Your task to perform on an android device: turn on showing notifications on the lock screen Image 0: 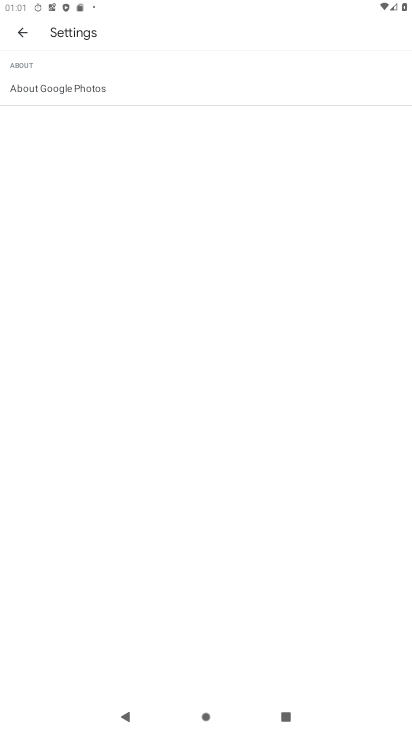
Step 0: press home button
Your task to perform on an android device: turn on showing notifications on the lock screen Image 1: 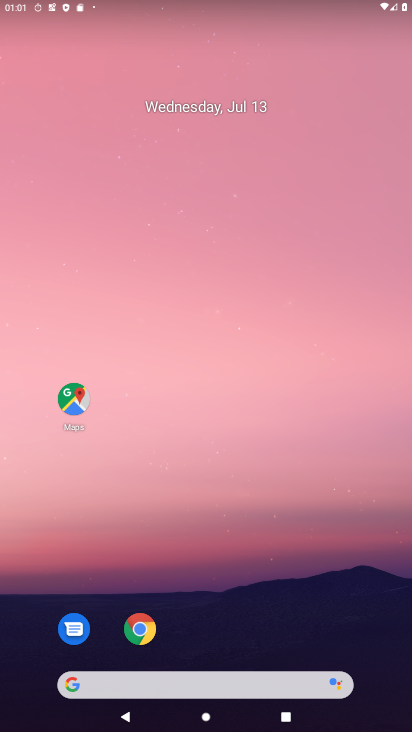
Step 1: drag from (196, 643) to (262, 213)
Your task to perform on an android device: turn on showing notifications on the lock screen Image 2: 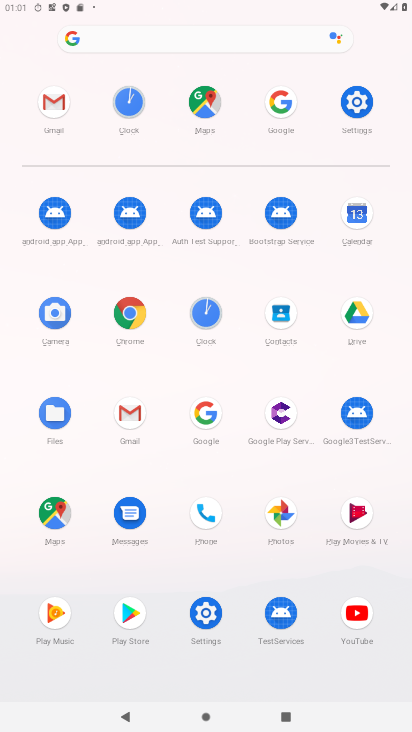
Step 2: click (362, 115)
Your task to perform on an android device: turn on showing notifications on the lock screen Image 3: 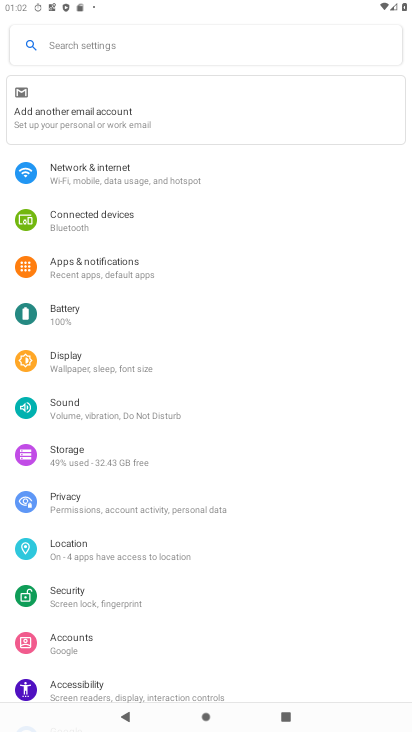
Step 3: click (145, 266)
Your task to perform on an android device: turn on showing notifications on the lock screen Image 4: 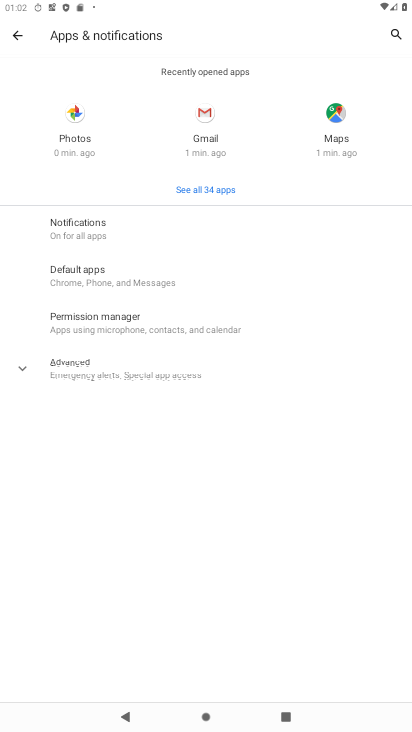
Step 4: click (144, 225)
Your task to perform on an android device: turn on showing notifications on the lock screen Image 5: 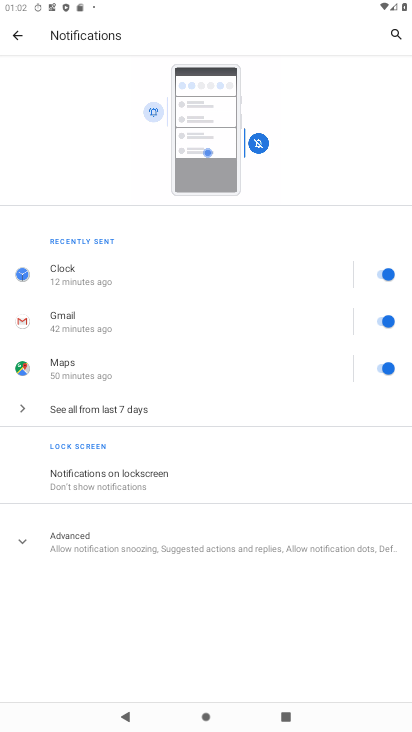
Step 5: click (150, 475)
Your task to perform on an android device: turn on showing notifications on the lock screen Image 6: 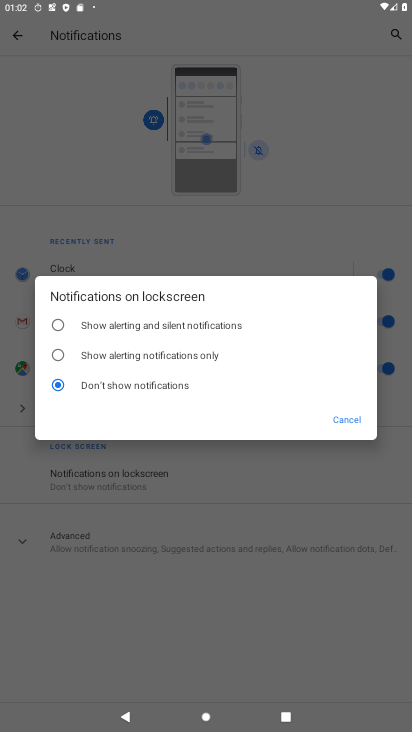
Step 6: click (131, 328)
Your task to perform on an android device: turn on showing notifications on the lock screen Image 7: 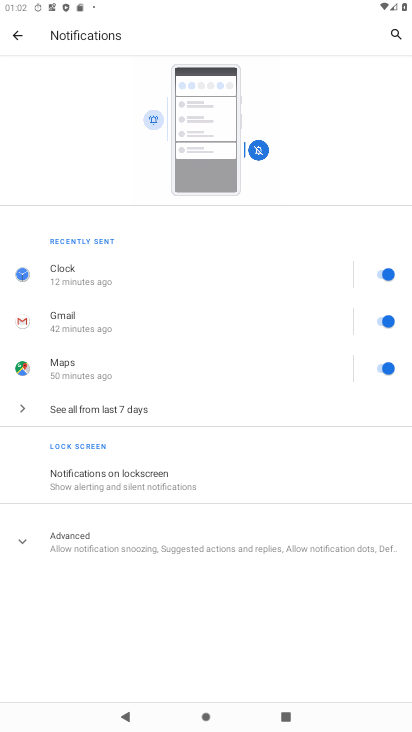
Step 7: task complete